Your task to perform on an android device: Go to notification settings Image 0: 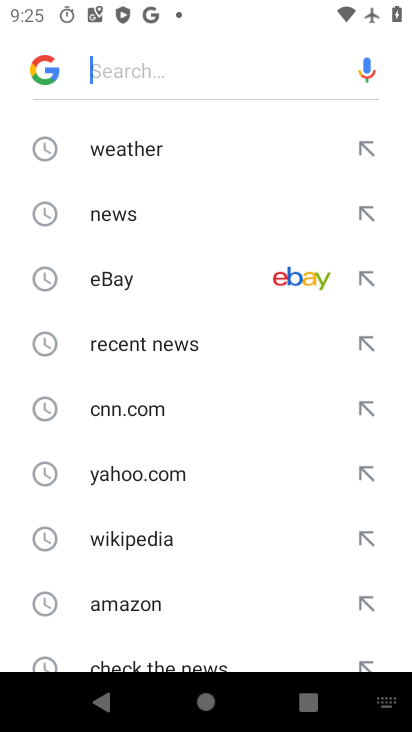
Step 0: press home button
Your task to perform on an android device: Go to notification settings Image 1: 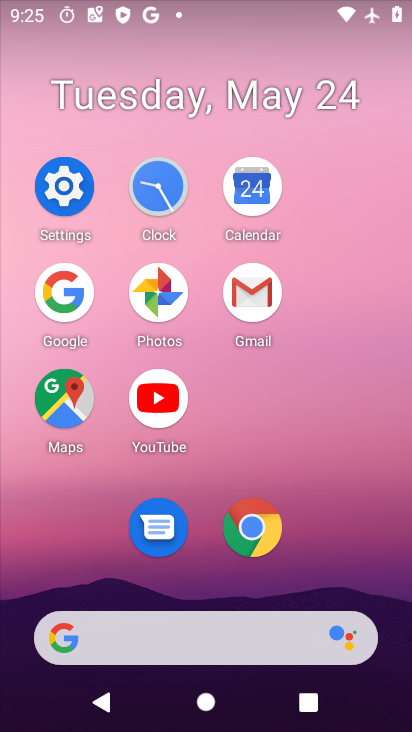
Step 1: click (92, 179)
Your task to perform on an android device: Go to notification settings Image 2: 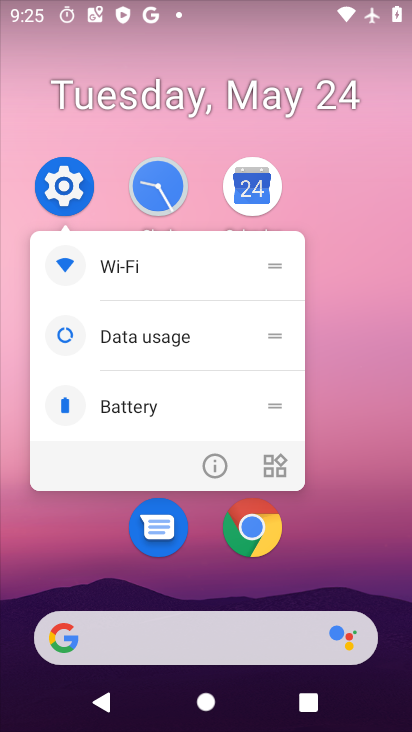
Step 2: click (82, 191)
Your task to perform on an android device: Go to notification settings Image 3: 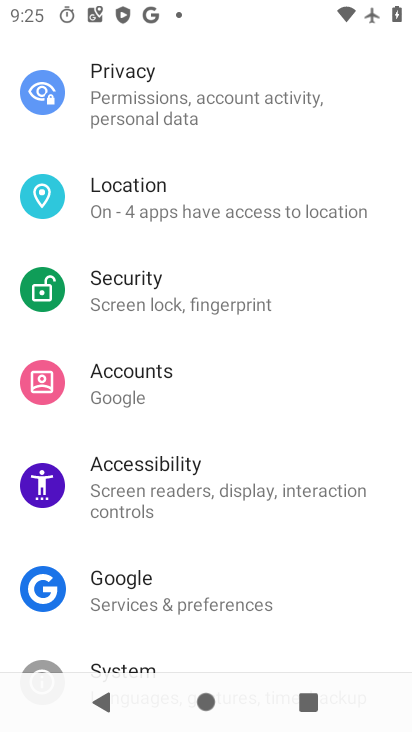
Step 3: drag from (260, 147) to (328, 569)
Your task to perform on an android device: Go to notification settings Image 4: 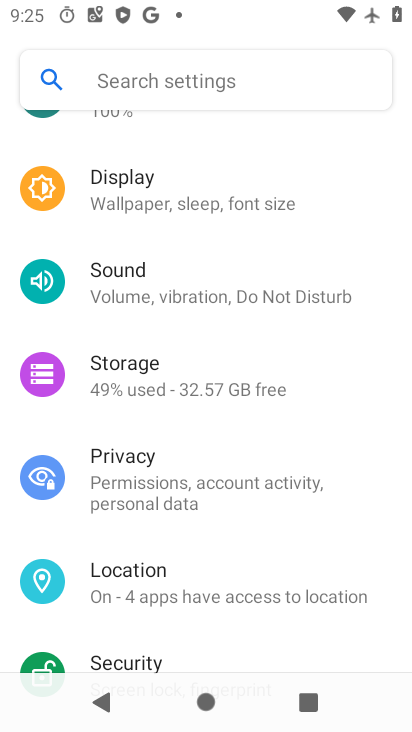
Step 4: drag from (218, 168) to (231, 530)
Your task to perform on an android device: Go to notification settings Image 5: 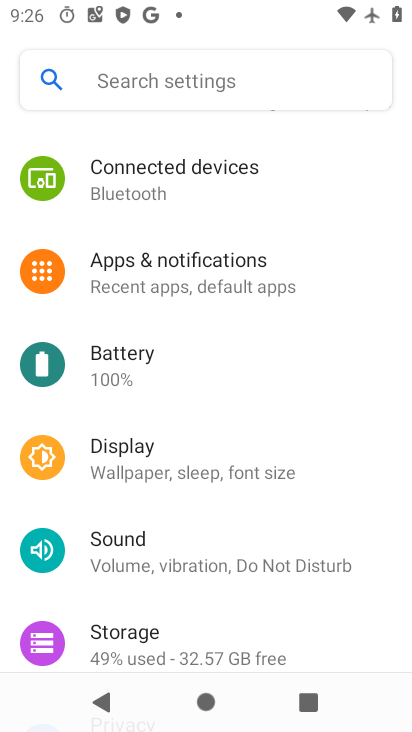
Step 5: click (235, 284)
Your task to perform on an android device: Go to notification settings Image 6: 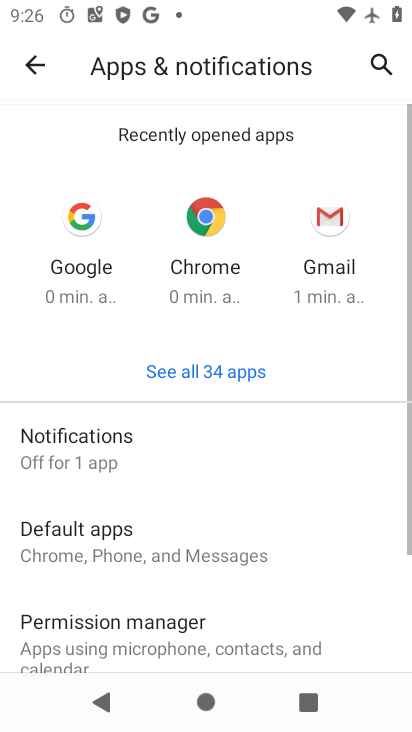
Step 6: task complete